Your task to perform on an android device: Add "energizer triple a" to the cart on bestbuy.com, then select checkout. Image 0: 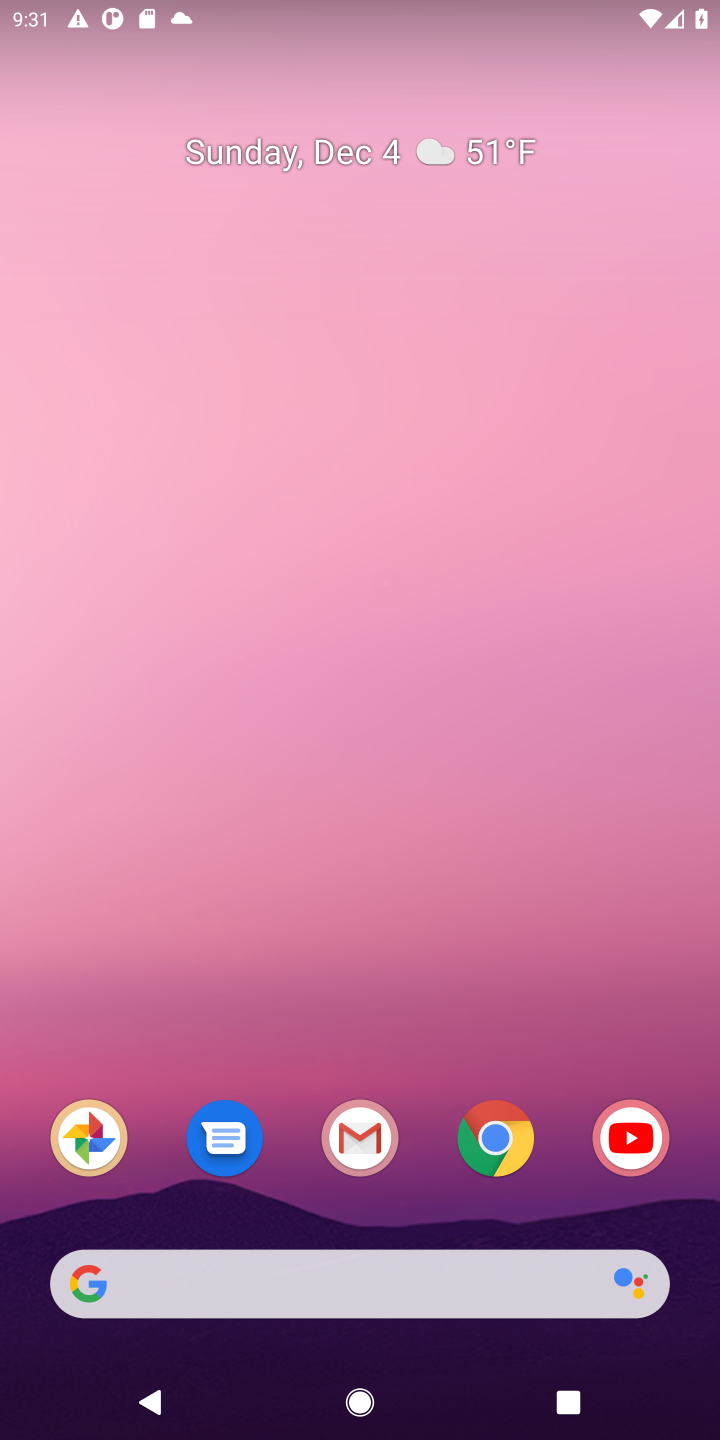
Step 0: click (479, 1135)
Your task to perform on an android device: Add "energizer triple a" to the cart on bestbuy.com, then select checkout. Image 1: 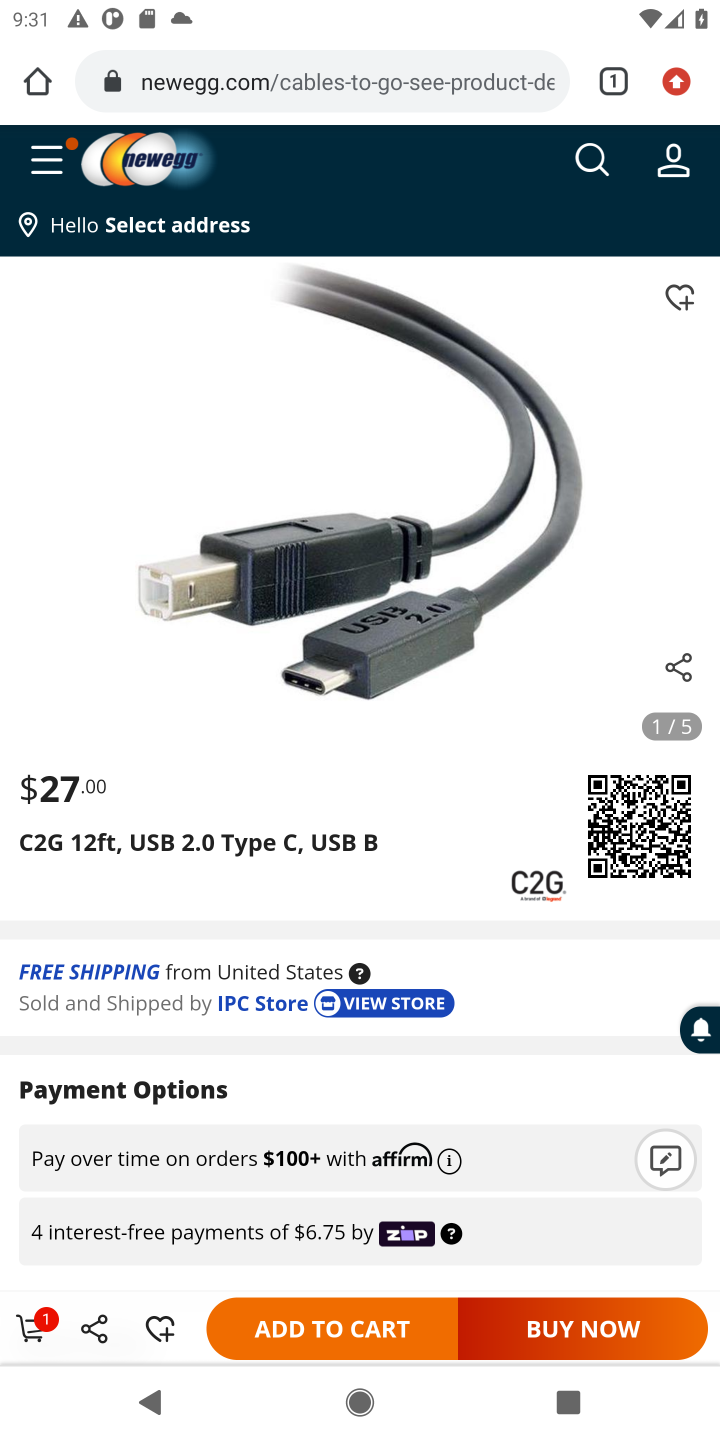
Step 1: click (287, 71)
Your task to perform on an android device: Add "energizer triple a" to the cart on bestbuy.com, then select checkout. Image 2: 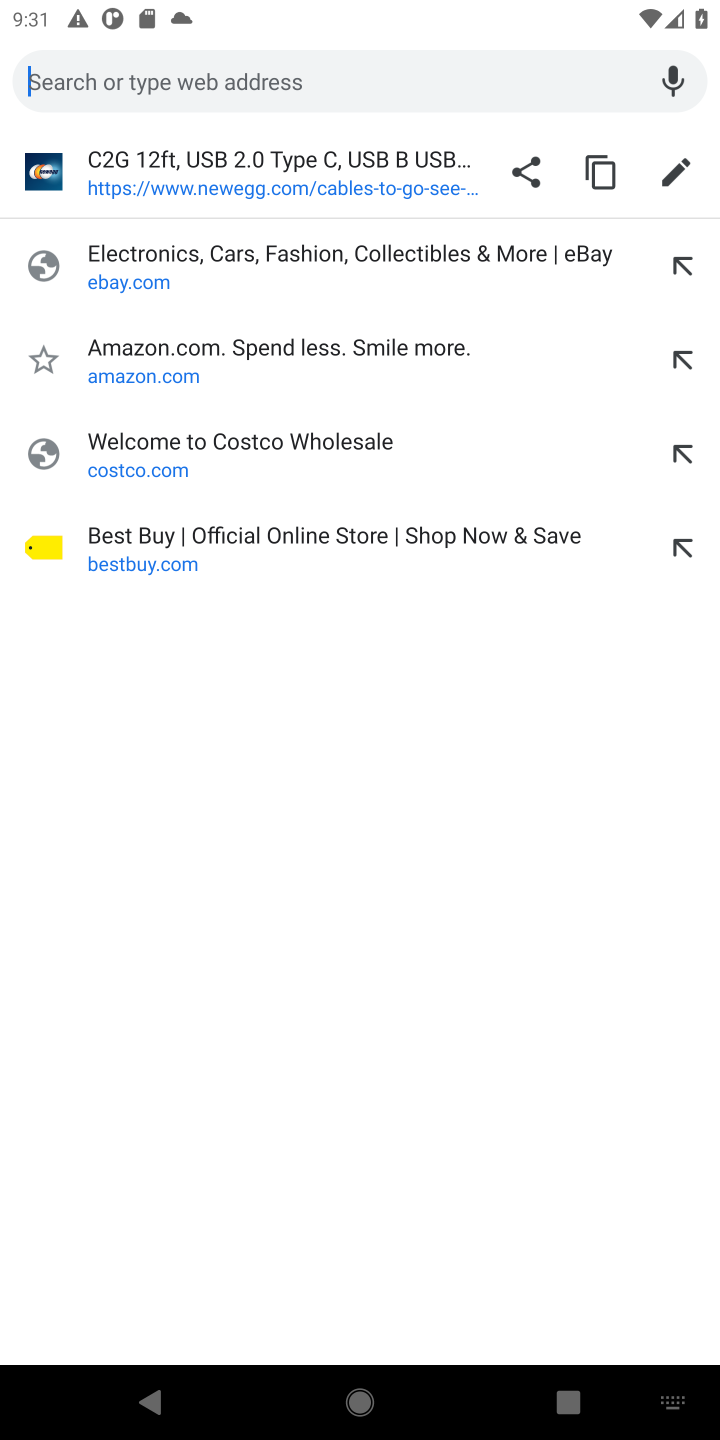
Step 2: click (324, 526)
Your task to perform on an android device: Add "energizer triple a" to the cart on bestbuy.com, then select checkout. Image 3: 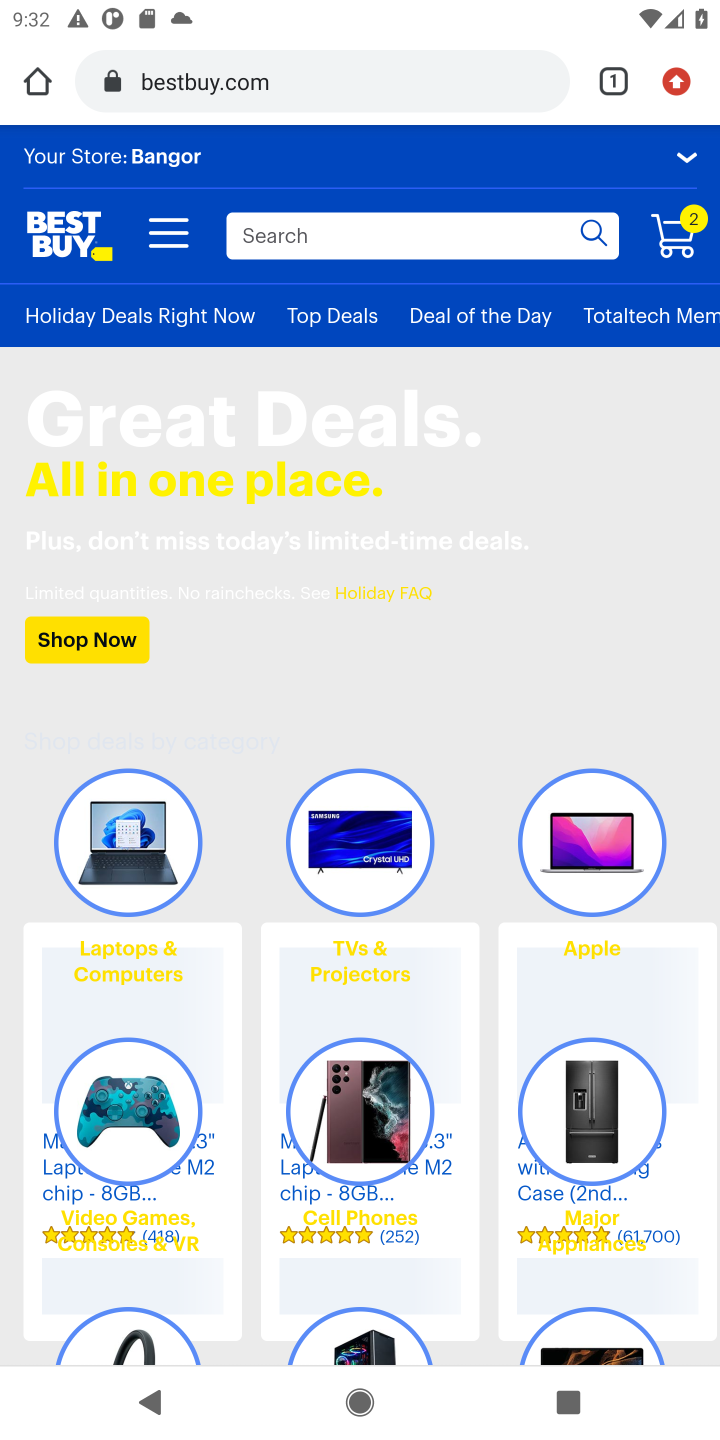
Step 3: click (482, 236)
Your task to perform on an android device: Add "energizer triple a" to the cart on bestbuy.com, then select checkout. Image 4: 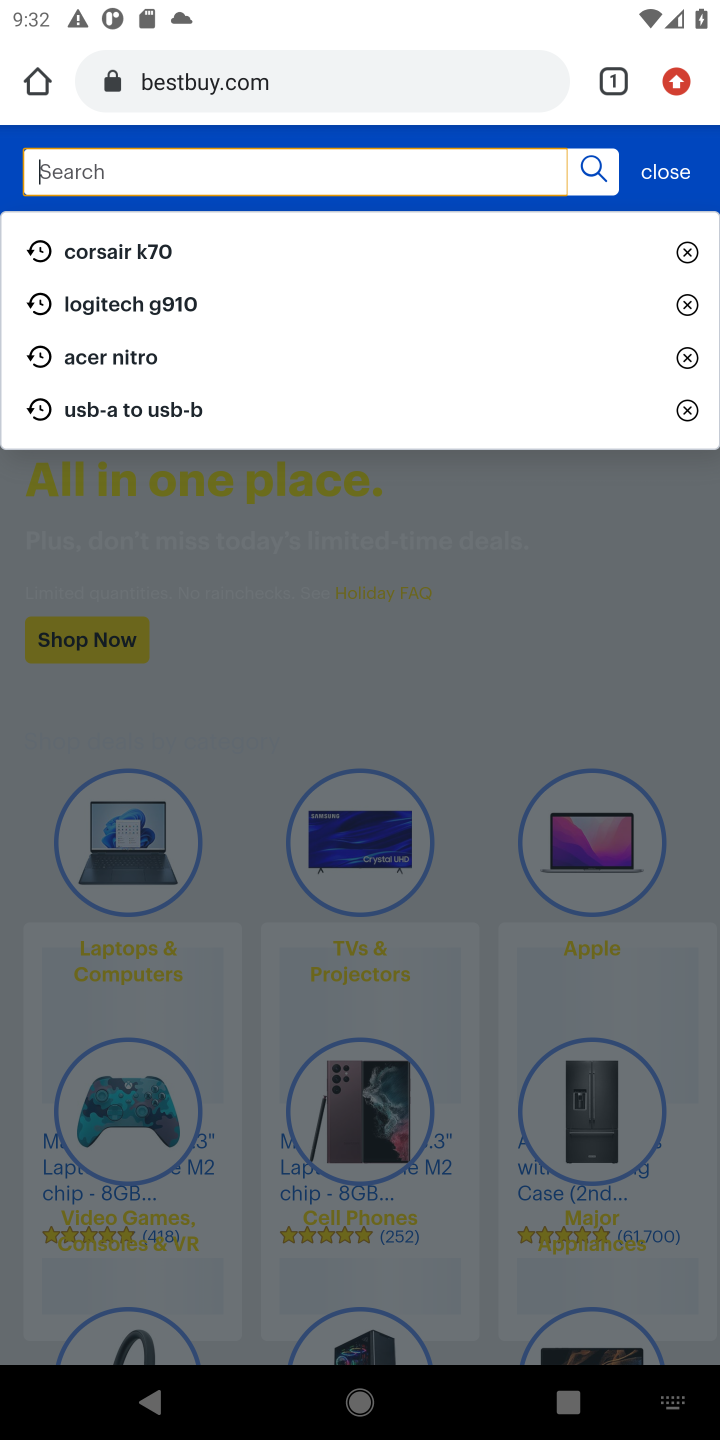
Step 4: type "energizer triple a"
Your task to perform on an android device: Add "energizer triple a" to the cart on bestbuy.com, then select checkout. Image 5: 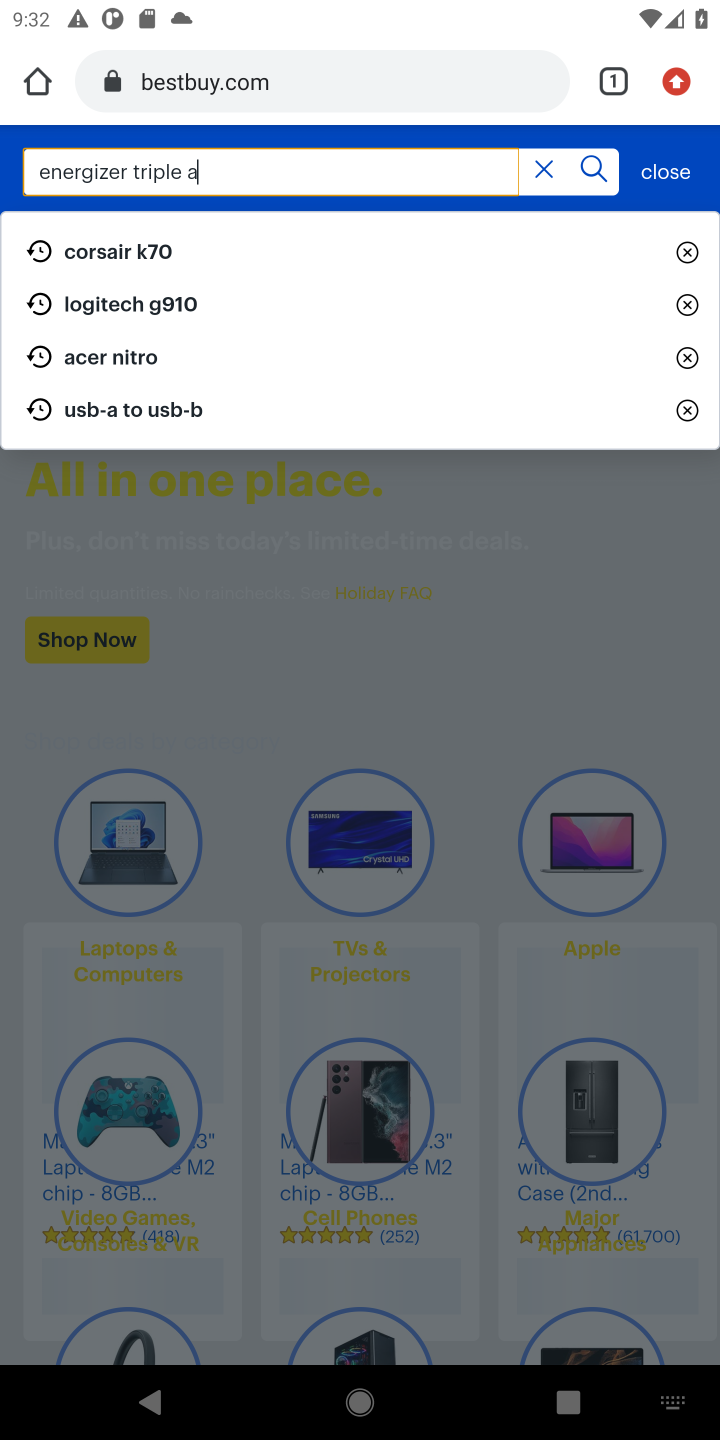
Step 5: press enter
Your task to perform on an android device: Add "energizer triple a" to the cart on bestbuy.com, then select checkout. Image 6: 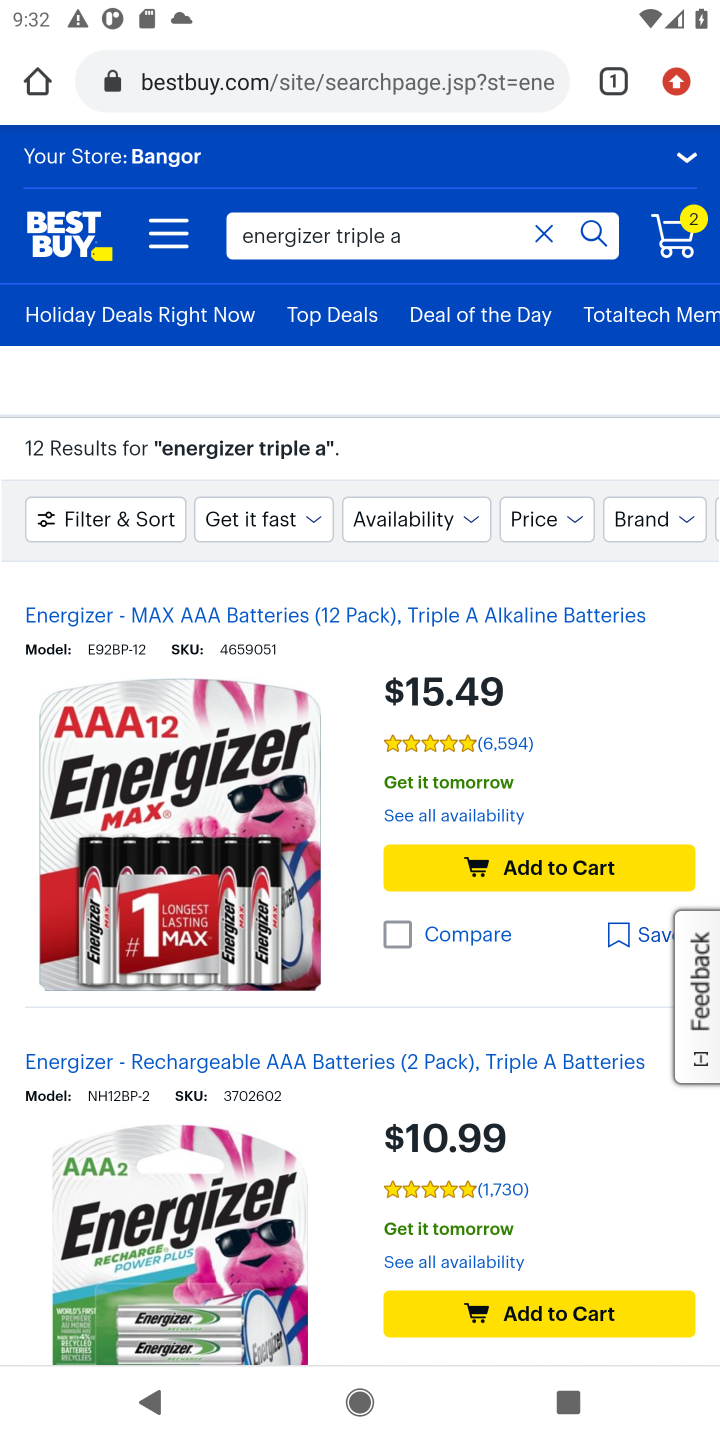
Step 6: click (178, 849)
Your task to perform on an android device: Add "energizer triple a" to the cart on bestbuy.com, then select checkout. Image 7: 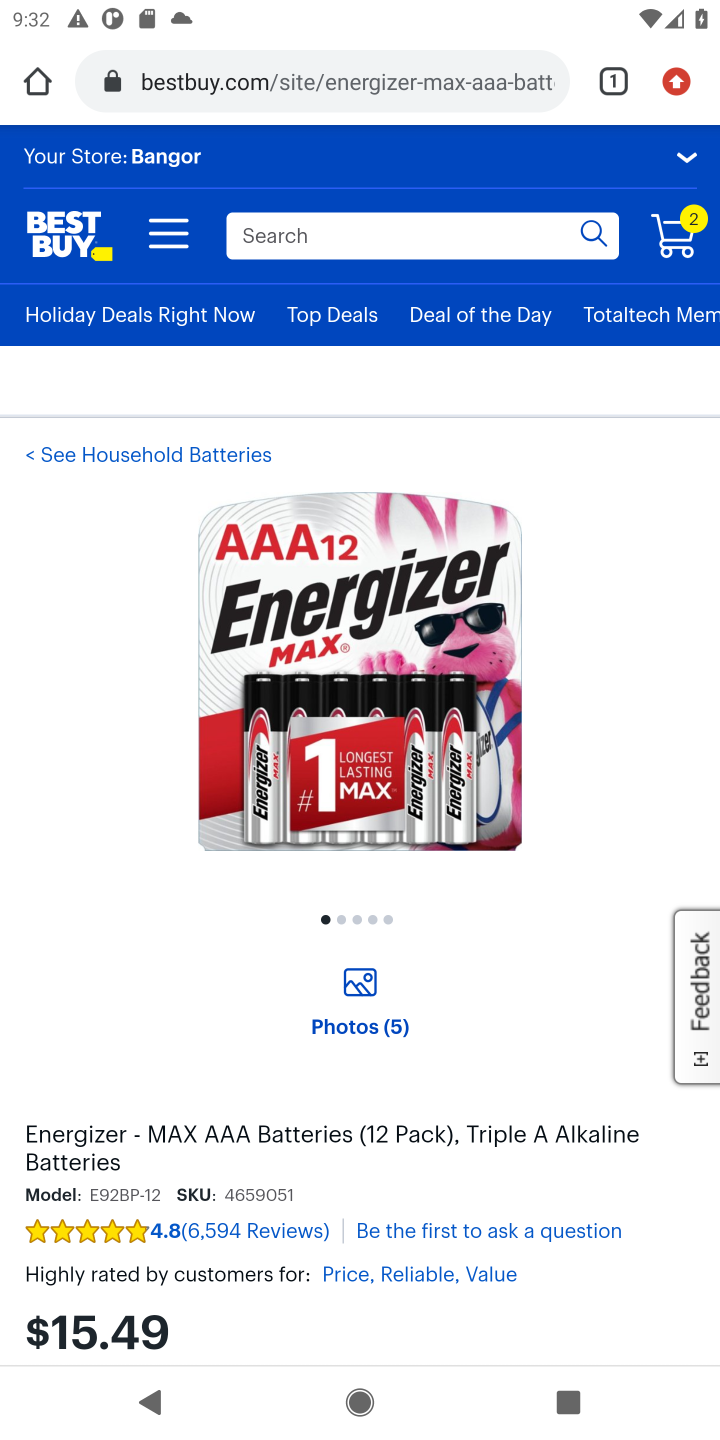
Step 7: drag from (575, 972) to (693, 527)
Your task to perform on an android device: Add "energizer triple a" to the cart on bestbuy.com, then select checkout. Image 8: 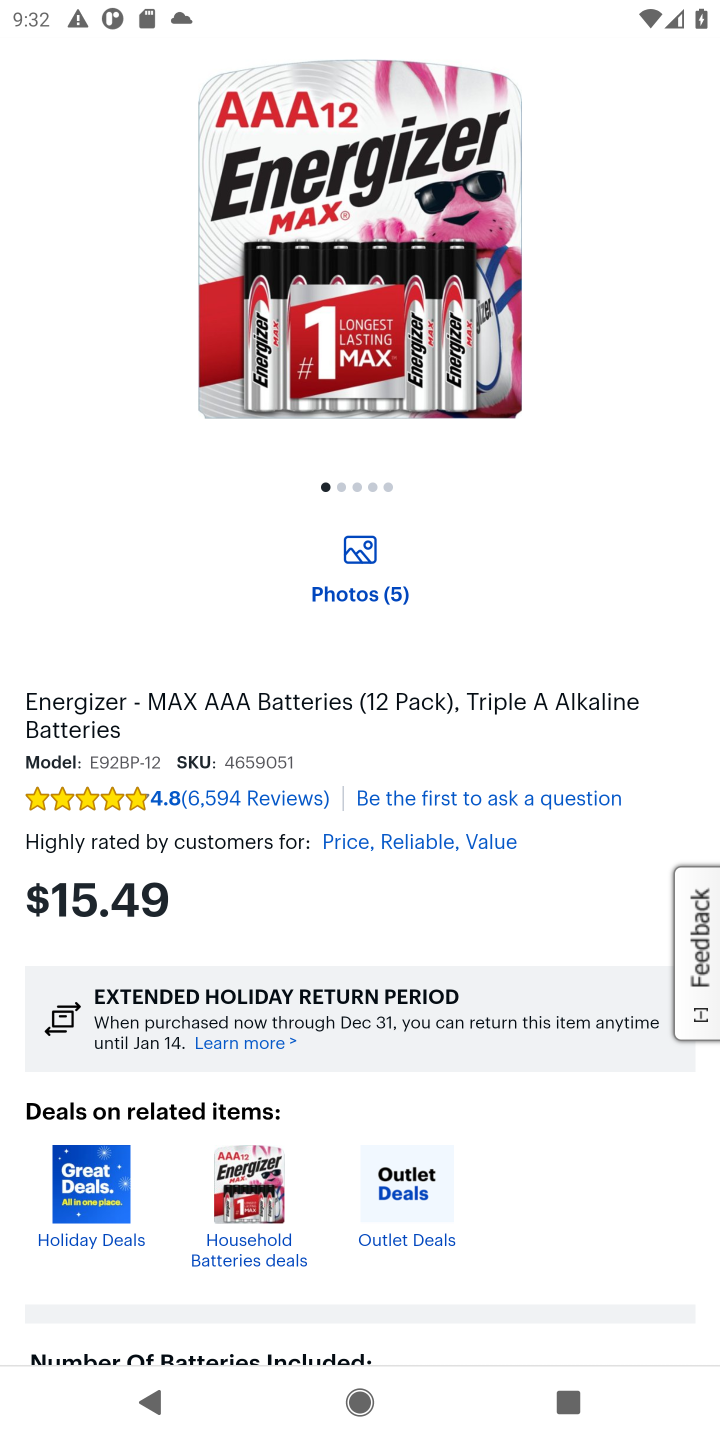
Step 8: drag from (573, 774) to (626, 419)
Your task to perform on an android device: Add "energizer triple a" to the cart on bestbuy.com, then select checkout. Image 9: 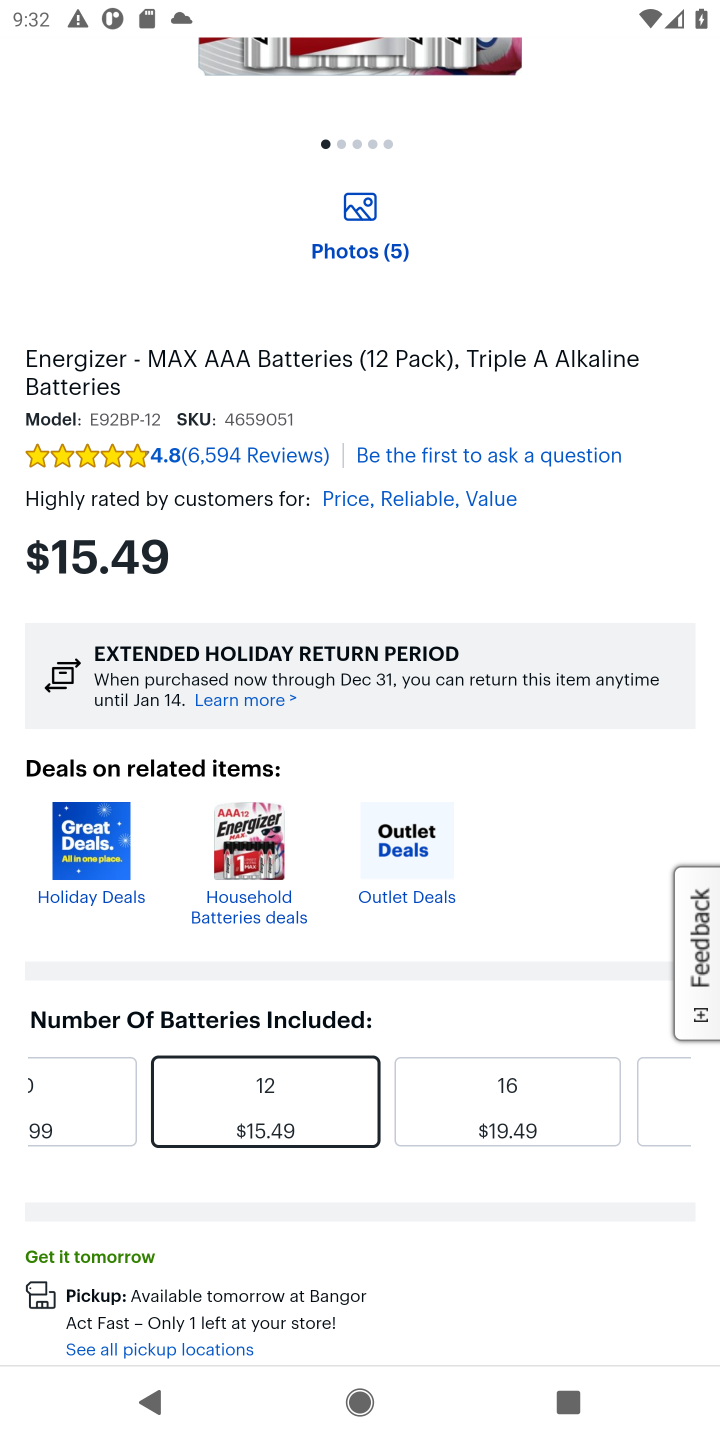
Step 9: drag from (489, 944) to (562, 351)
Your task to perform on an android device: Add "energizer triple a" to the cart on bestbuy.com, then select checkout. Image 10: 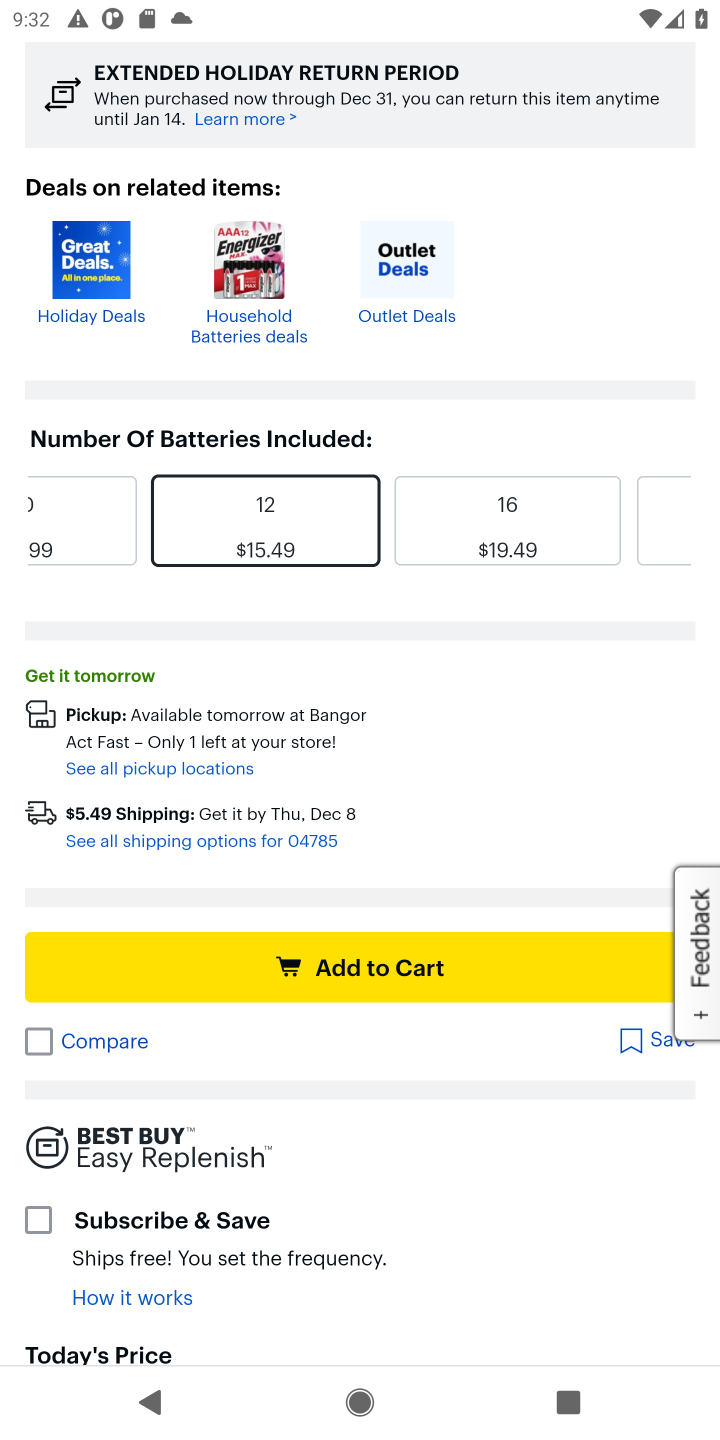
Step 10: click (358, 968)
Your task to perform on an android device: Add "energizer triple a" to the cart on bestbuy.com, then select checkout. Image 11: 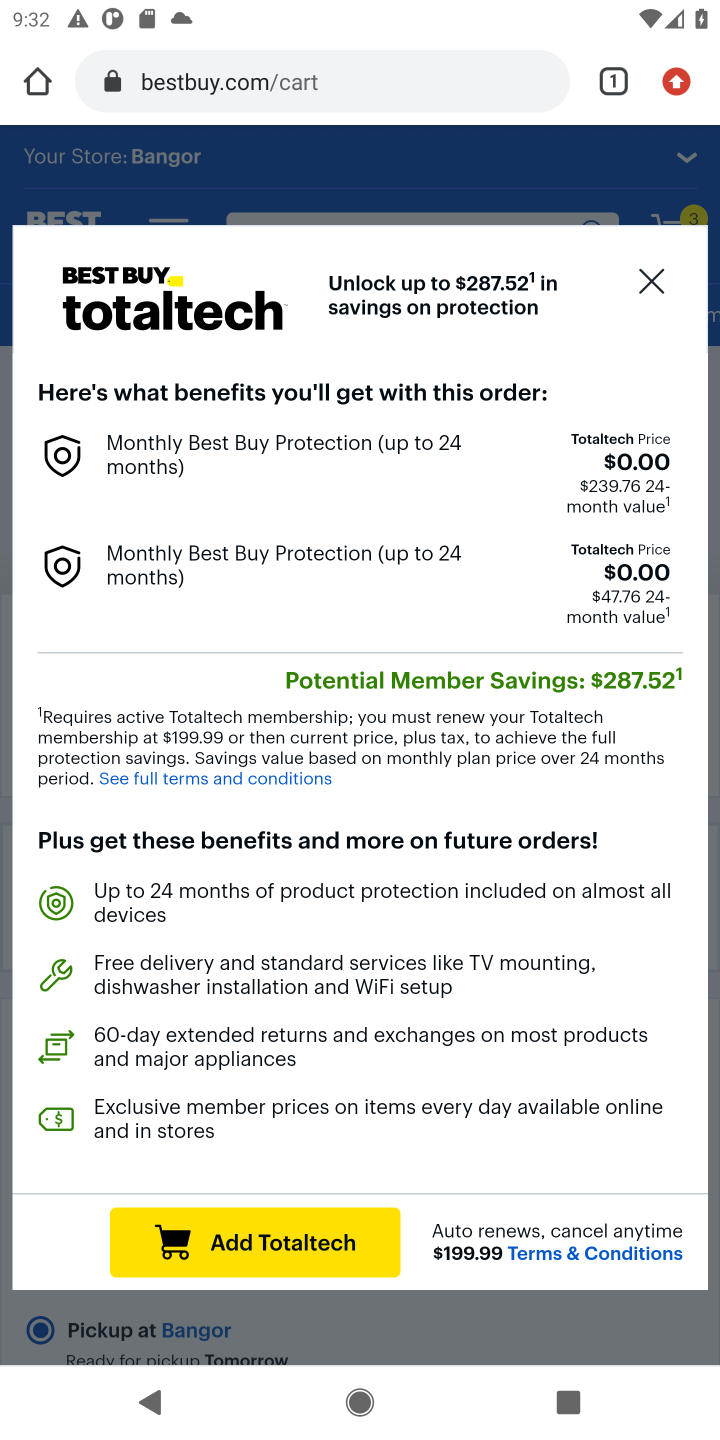
Step 11: click (659, 274)
Your task to perform on an android device: Add "energizer triple a" to the cart on bestbuy.com, then select checkout. Image 12: 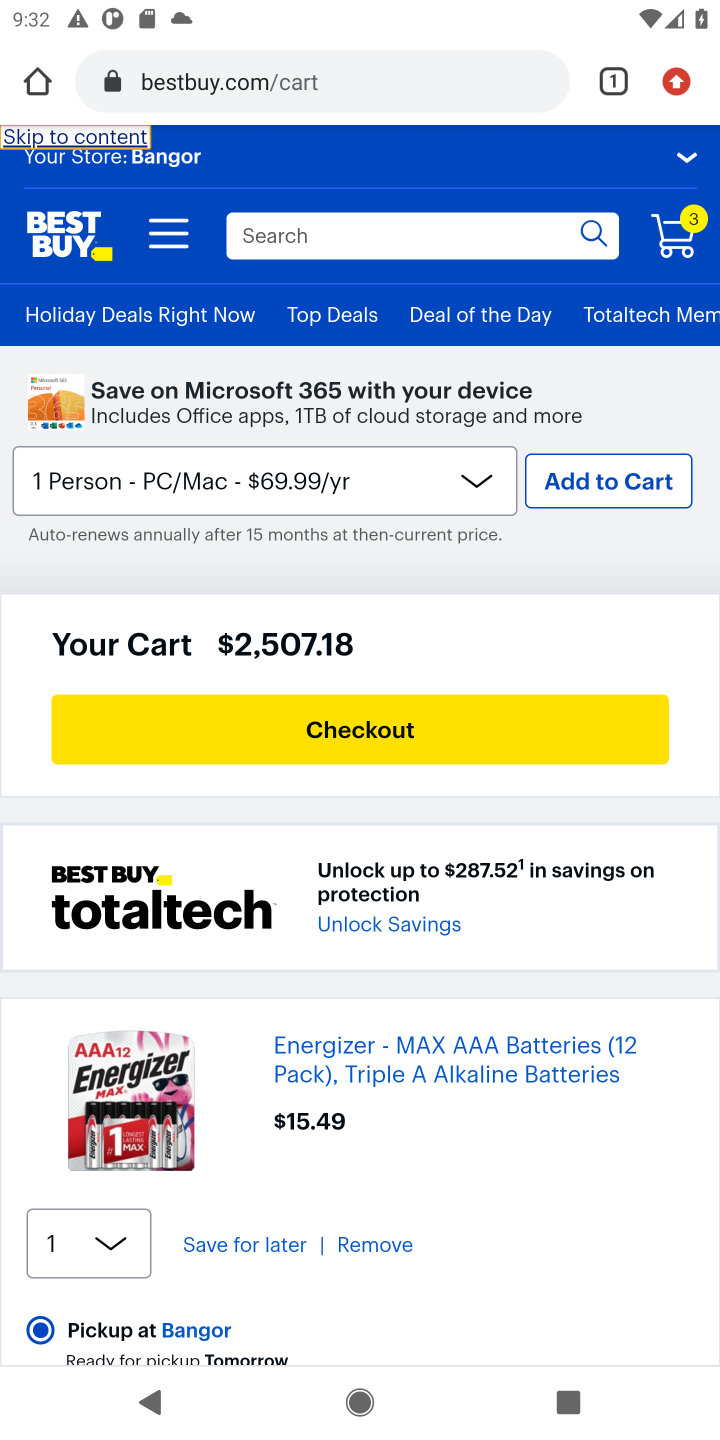
Step 12: click (365, 723)
Your task to perform on an android device: Add "energizer triple a" to the cart on bestbuy.com, then select checkout. Image 13: 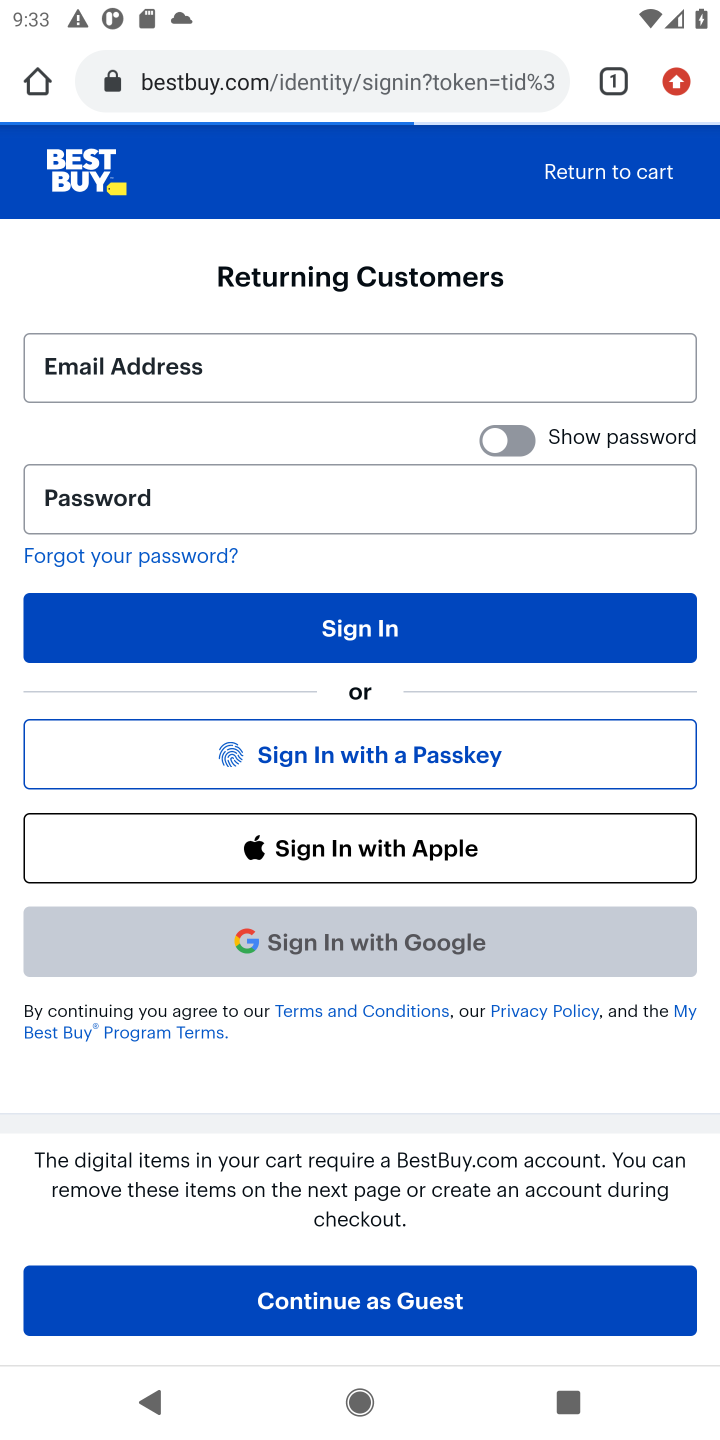
Step 13: task complete